Your task to perform on an android device: turn notification dots off Image 0: 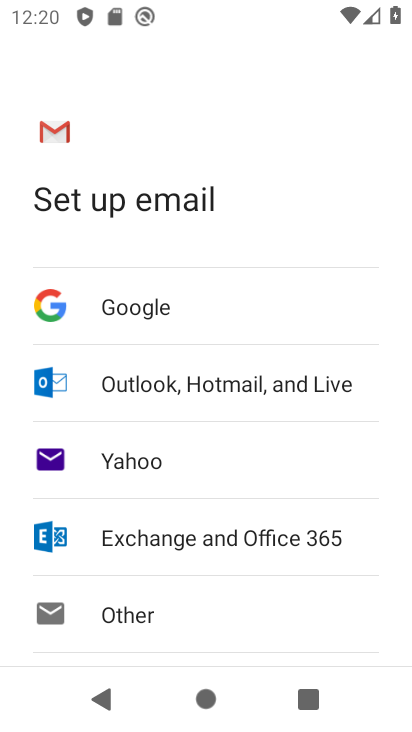
Step 0: press home button
Your task to perform on an android device: turn notification dots off Image 1: 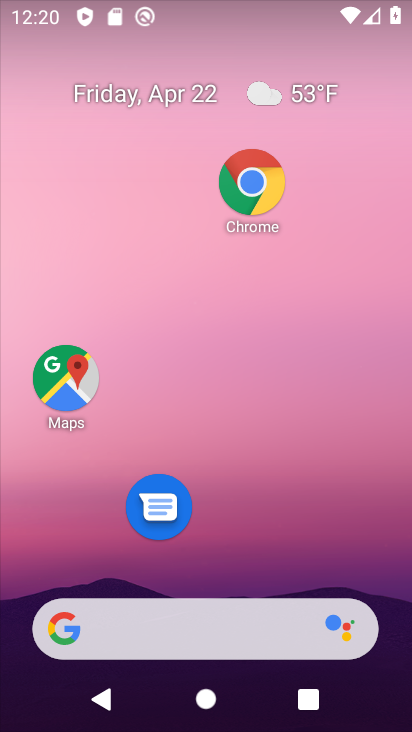
Step 1: drag from (161, 616) to (5, 67)
Your task to perform on an android device: turn notification dots off Image 2: 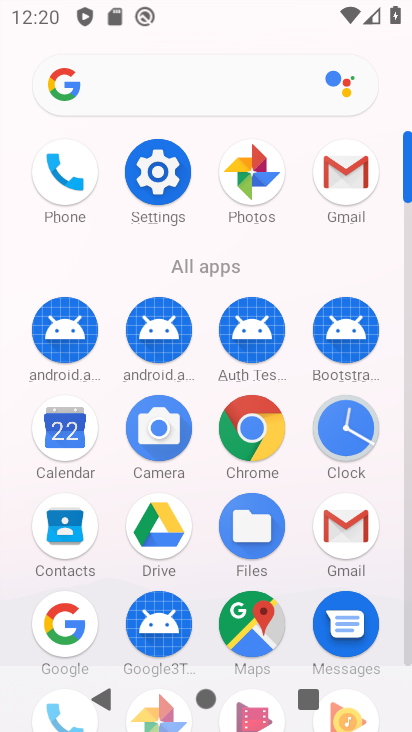
Step 2: click (168, 195)
Your task to perform on an android device: turn notification dots off Image 3: 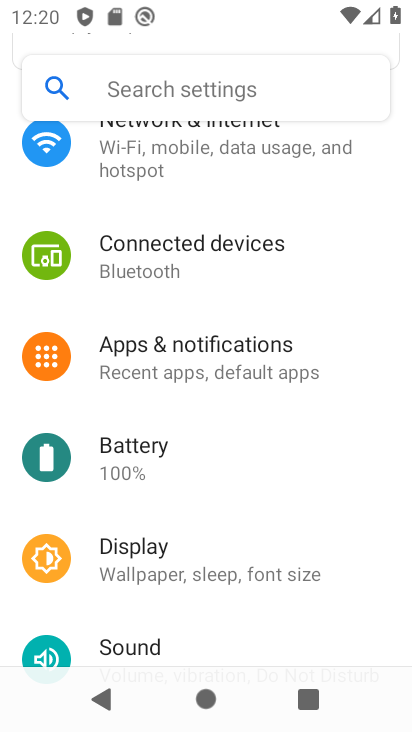
Step 3: click (191, 351)
Your task to perform on an android device: turn notification dots off Image 4: 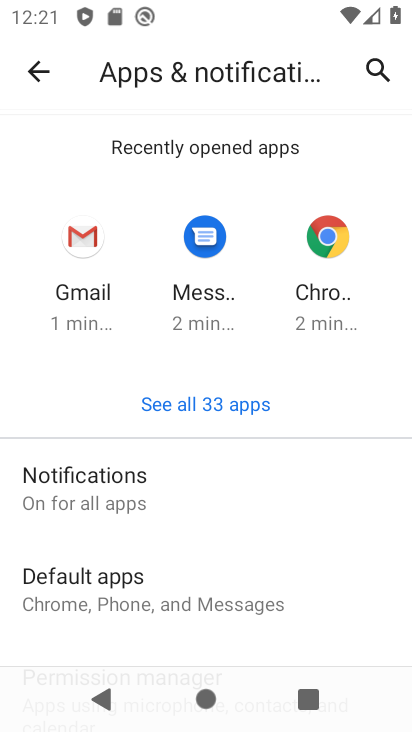
Step 4: click (133, 494)
Your task to perform on an android device: turn notification dots off Image 5: 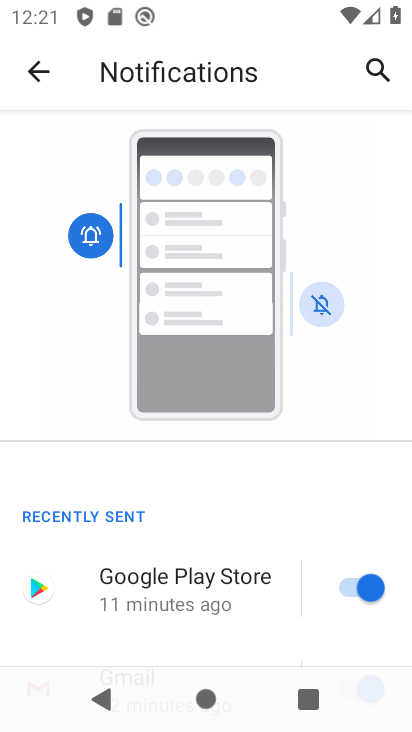
Step 5: drag from (178, 585) to (157, 29)
Your task to perform on an android device: turn notification dots off Image 6: 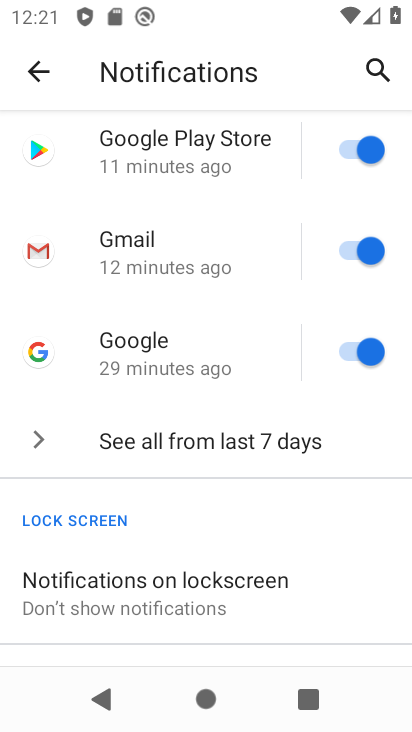
Step 6: drag from (265, 508) to (211, 38)
Your task to perform on an android device: turn notification dots off Image 7: 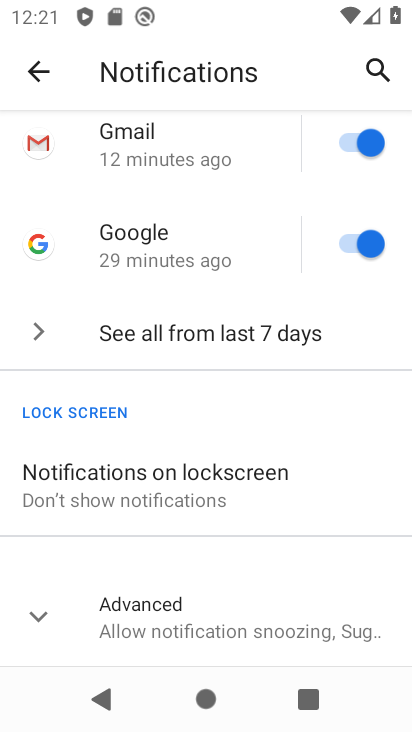
Step 7: drag from (228, 610) to (205, 93)
Your task to perform on an android device: turn notification dots off Image 8: 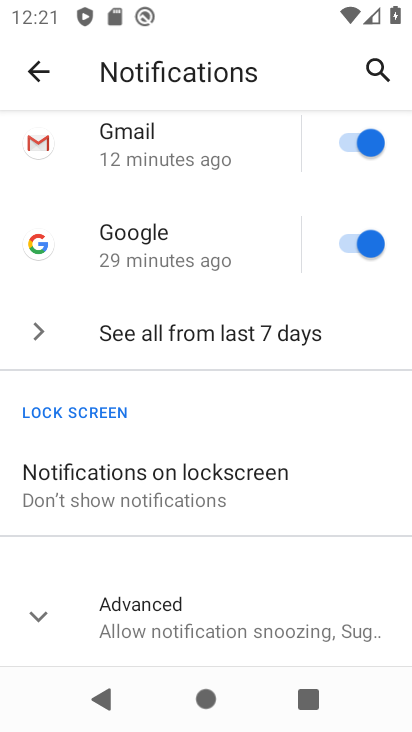
Step 8: click (222, 609)
Your task to perform on an android device: turn notification dots off Image 9: 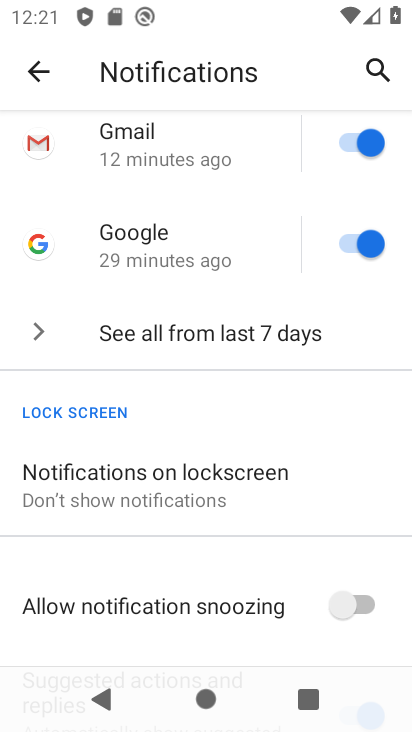
Step 9: drag from (240, 603) to (253, 201)
Your task to perform on an android device: turn notification dots off Image 10: 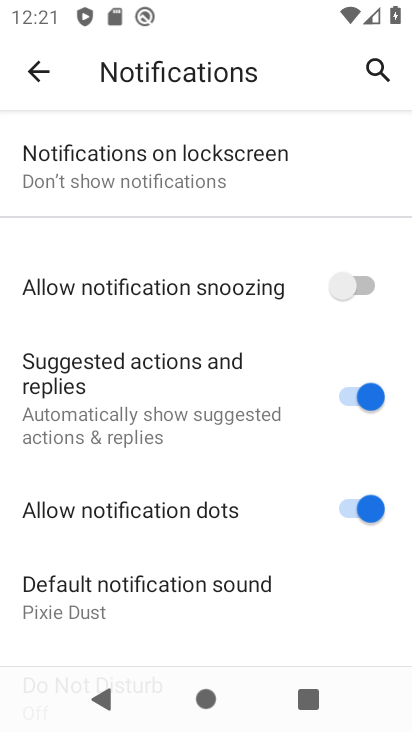
Step 10: click (378, 503)
Your task to perform on an android device: turn notification dots off Image 11: 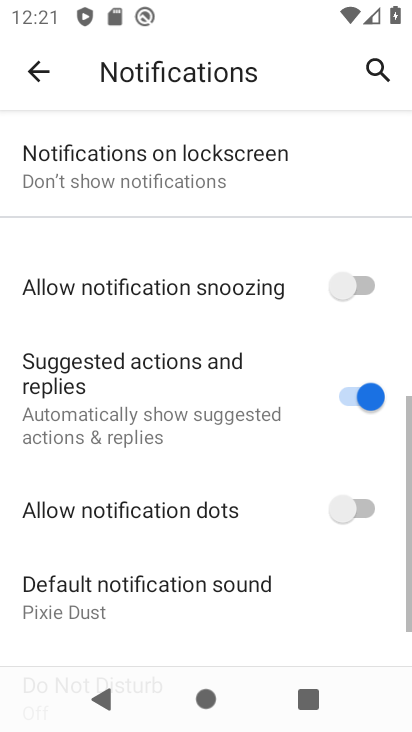
Step 11: task complete